Your task to perform on an android device: uninstall "Microsoft Outlook" Image 0: 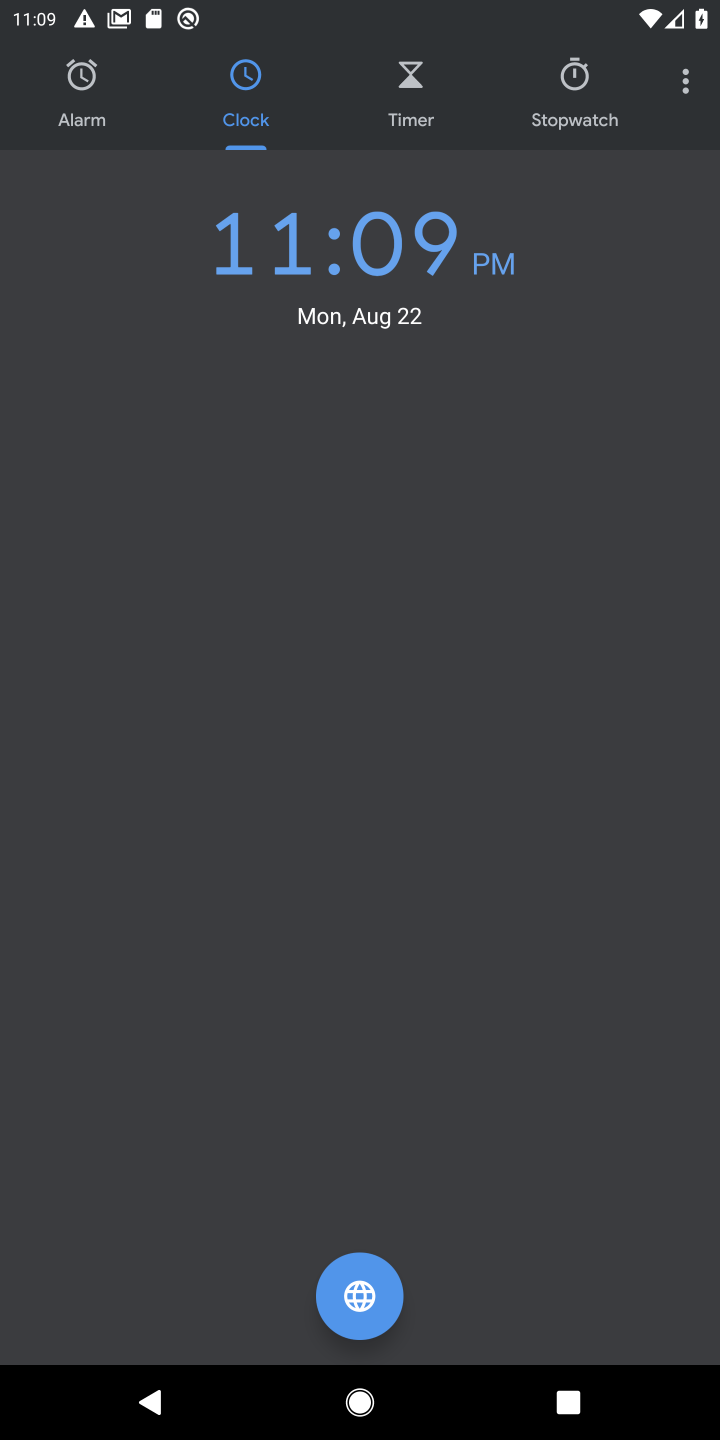
Step 0: press back button
Your task to perform on an android device: uninstall "Microsoft Outlook" Image 1: 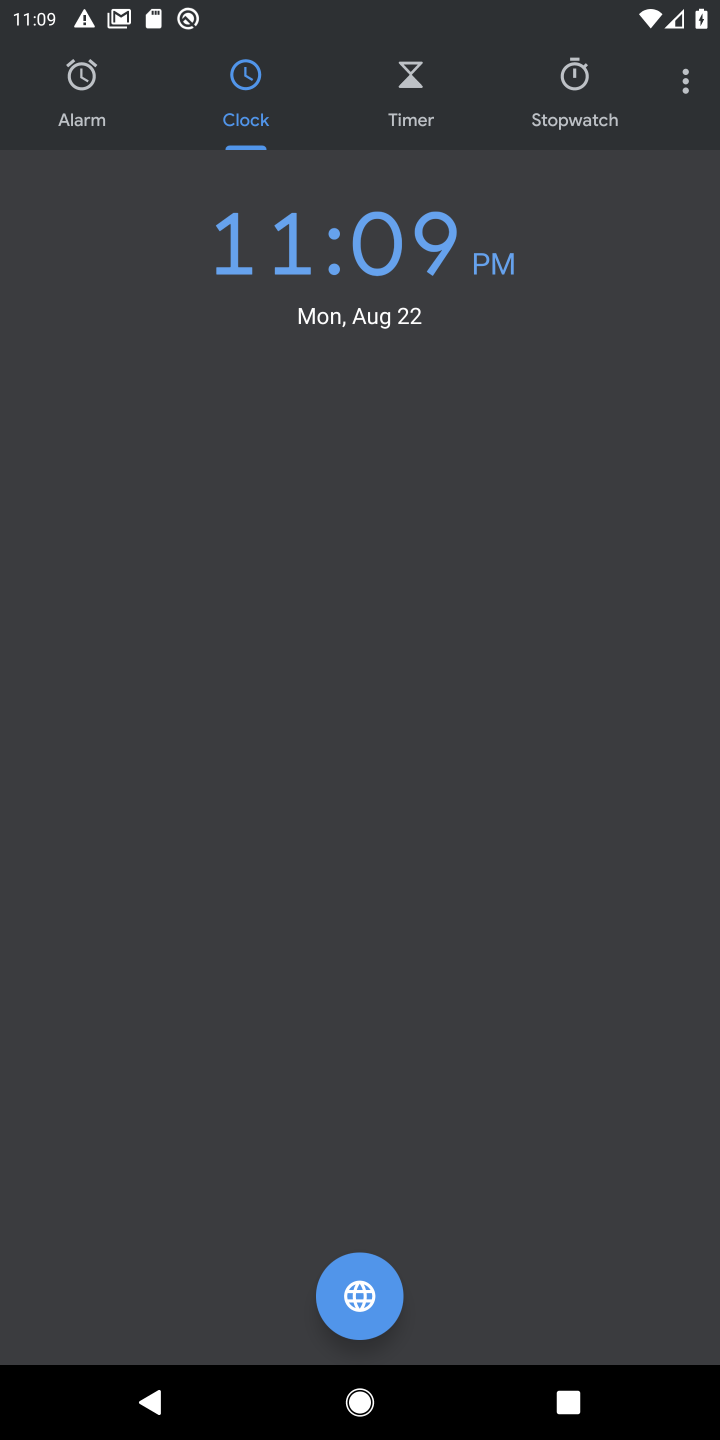
Step 1: press back button
Your task to perform on an android device: uninstall "Microsoft Outlook" Image 2: 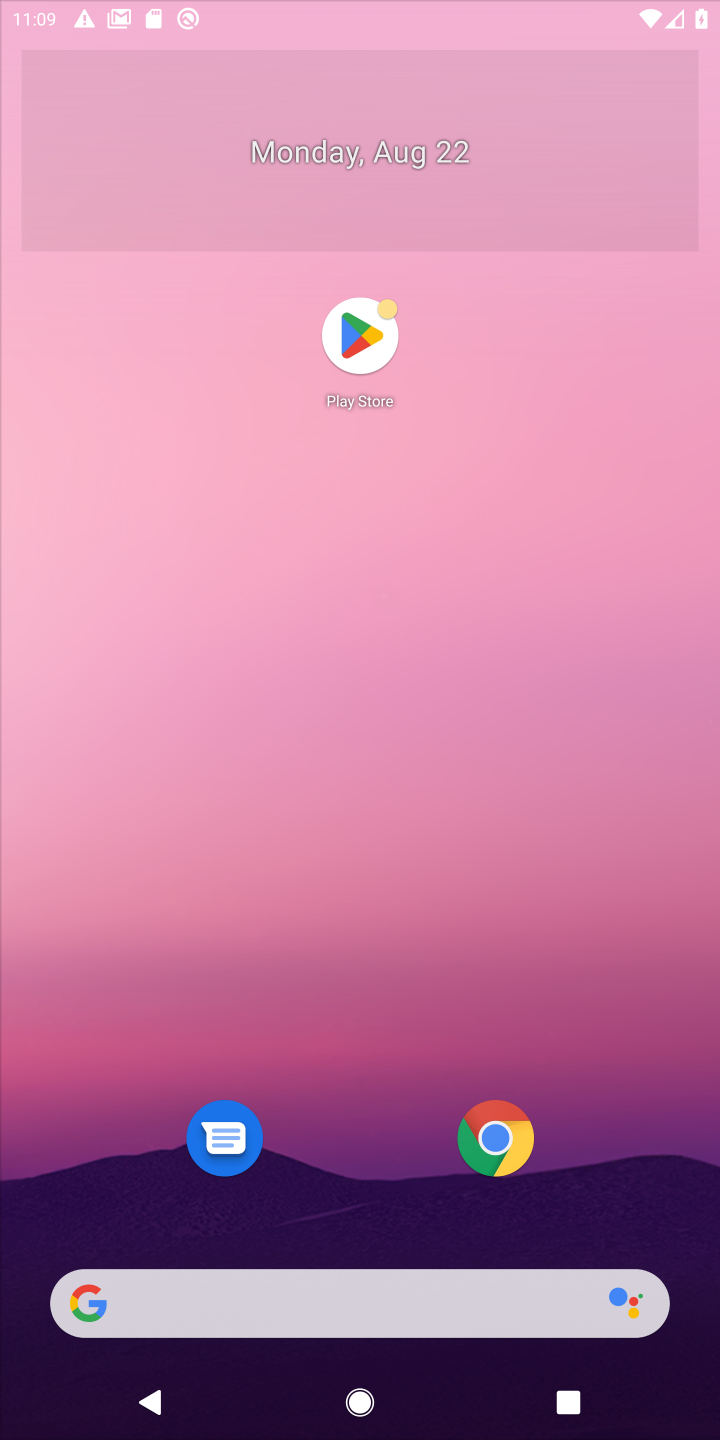
Step 2: press home button
Your task to perform on an android device: uninstall "Microsoft Outlook" Image 3: 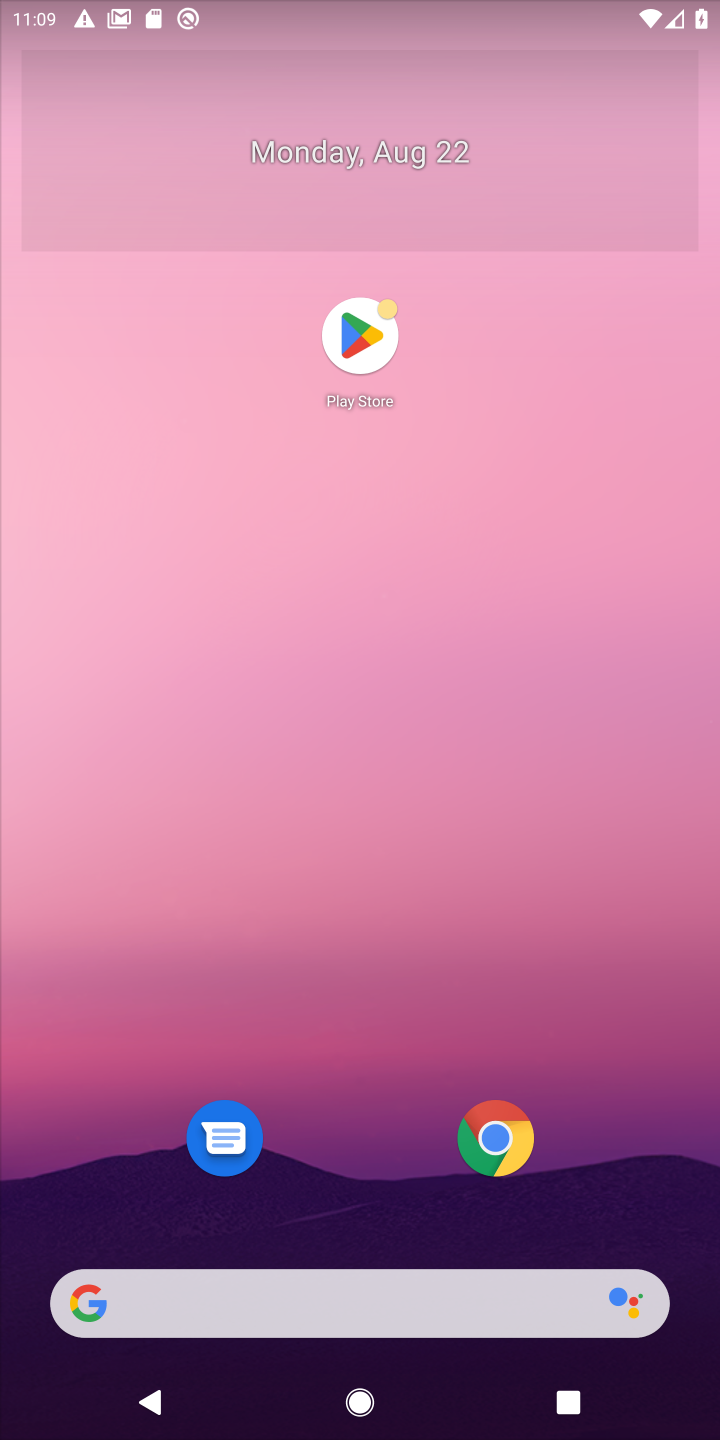
Step 3: click (361, 341)
Your task to perform on an android device: uninstall "Microsoft Outlook" Image 4: 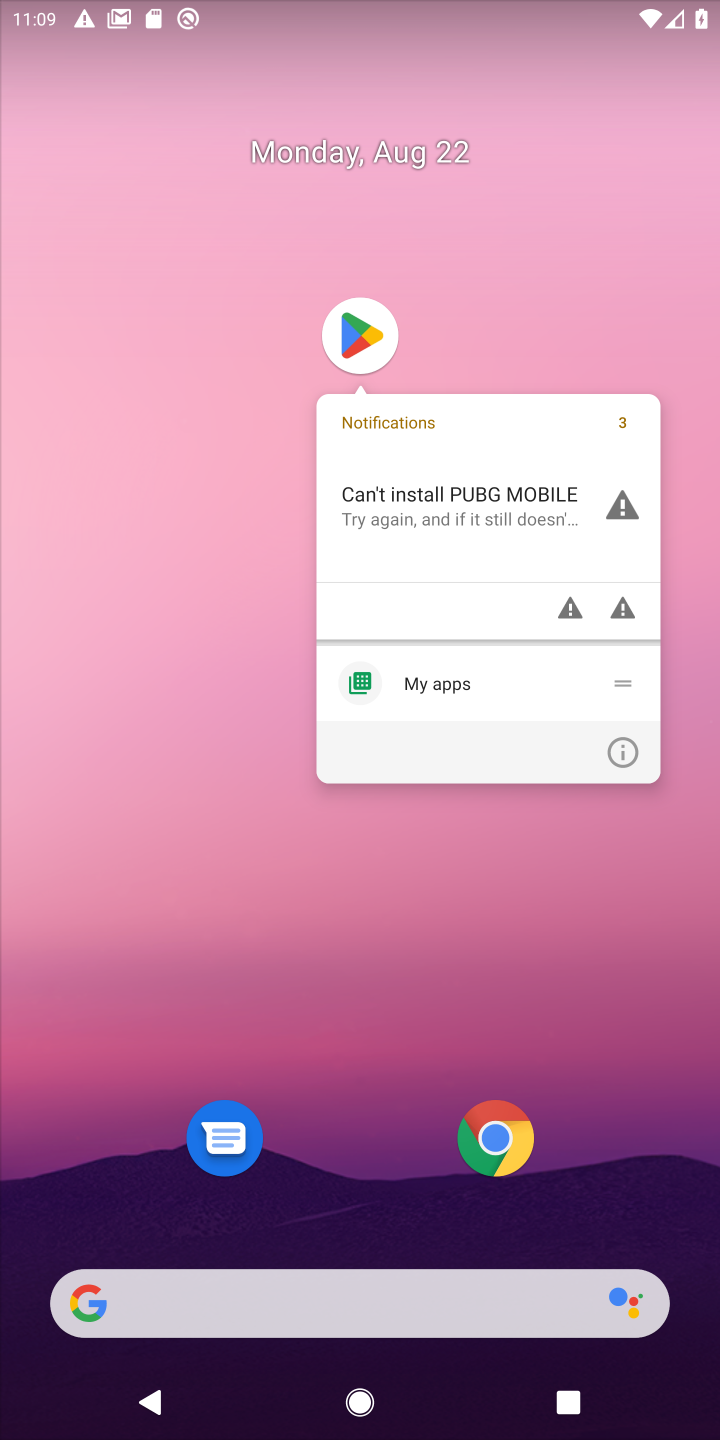
Step 4: click (345, 338)
Your task to perform on an android device: uninstall "Microsoft Outlook" Image 5: 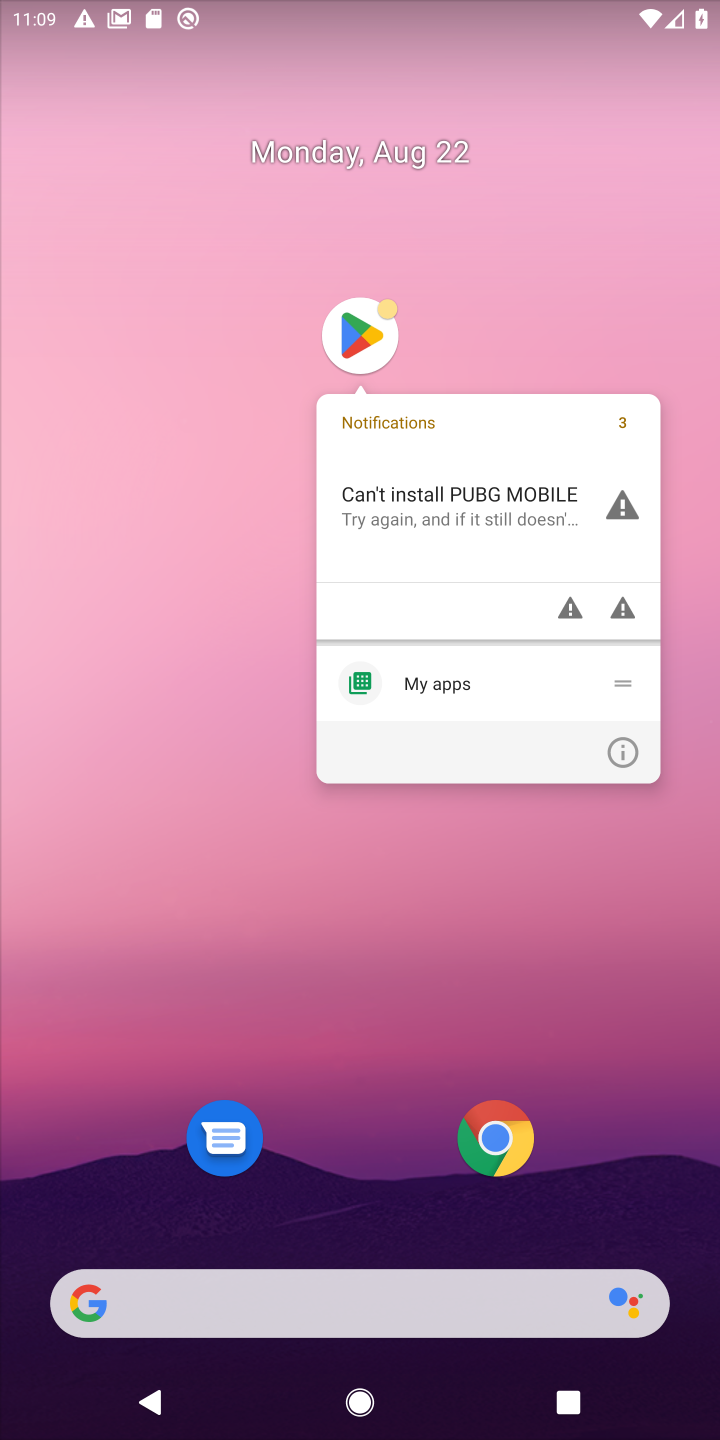
Step 5: click (351, 332)
Your task to perform on an android device: uninstall "Microsoft Outlook" Image 6: 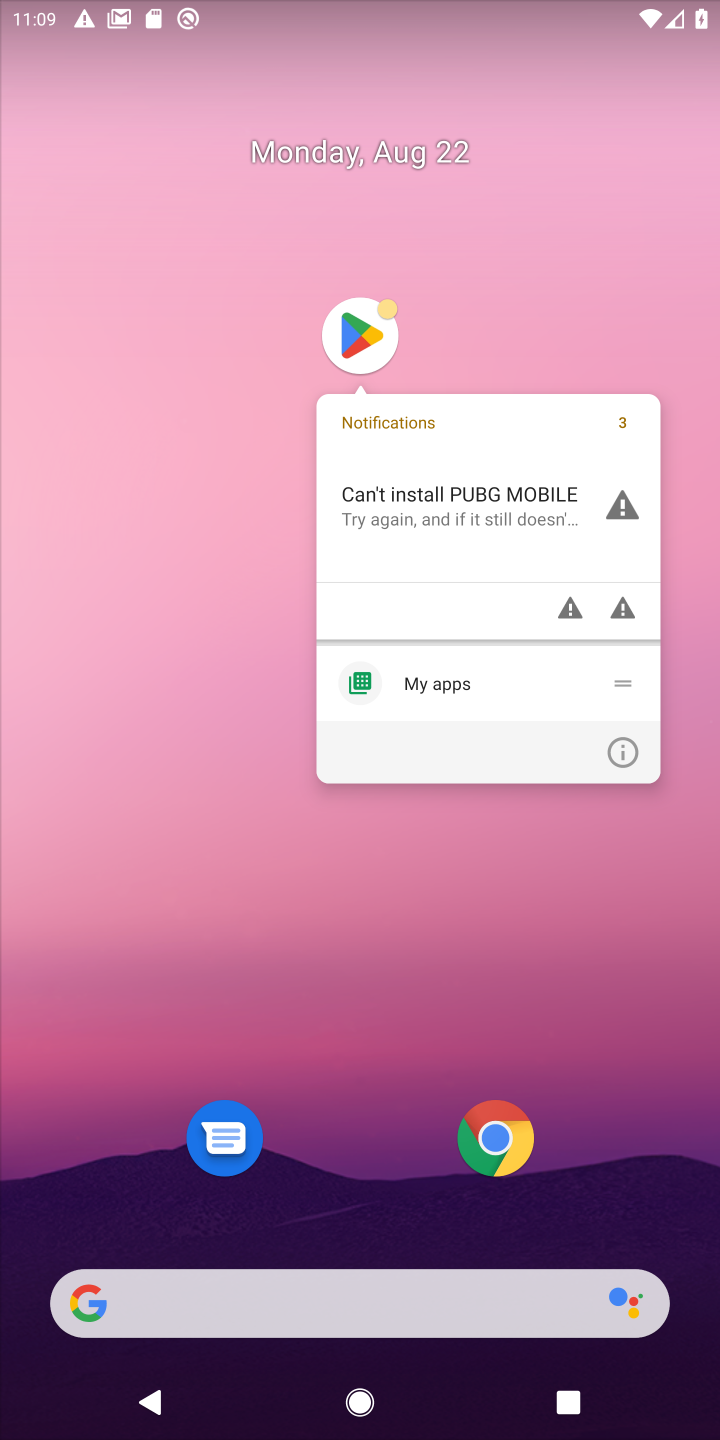
Step 6: click (351, 332)
Your task to perform on an android device: uninstall "Microsoft Outlook" Image 7: 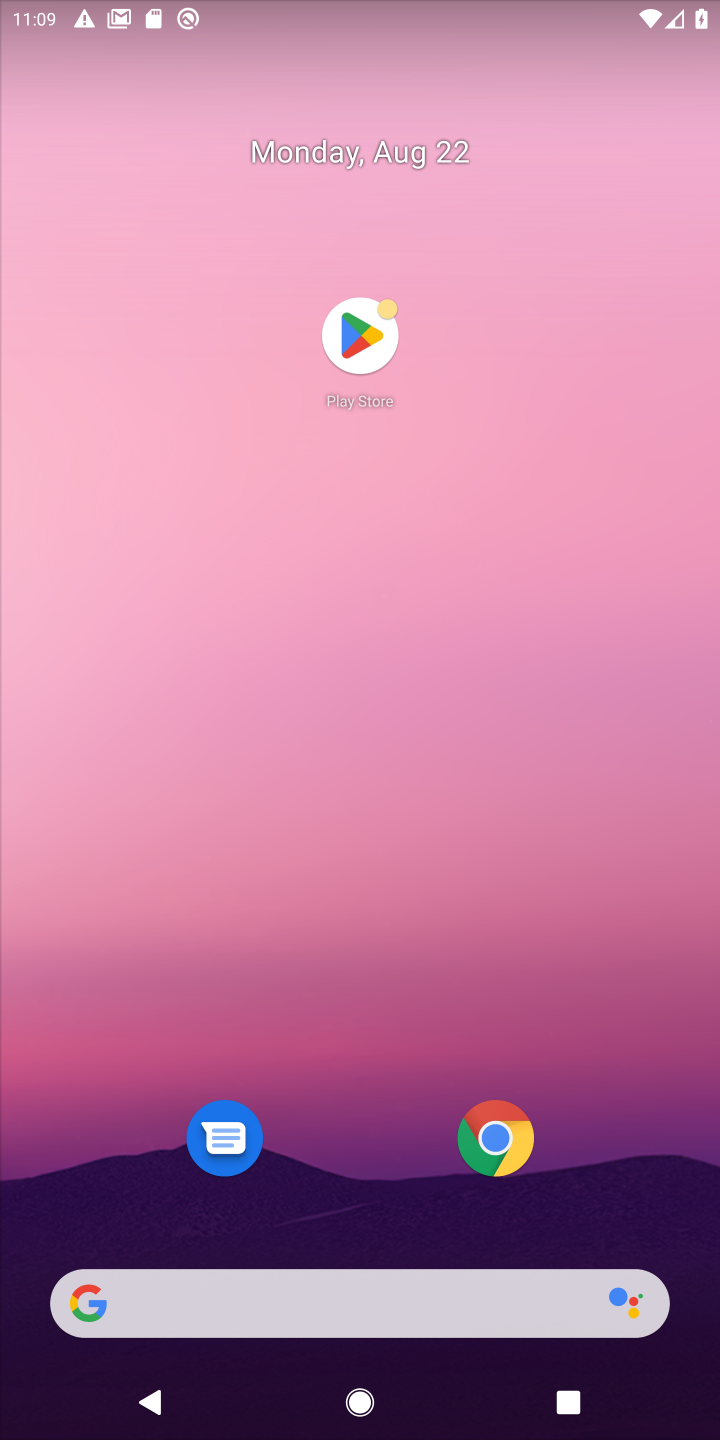
Step 7: click (364, 338)
Your task to perform on an android device: uninstall "Microsoft Outlook" Image 8: 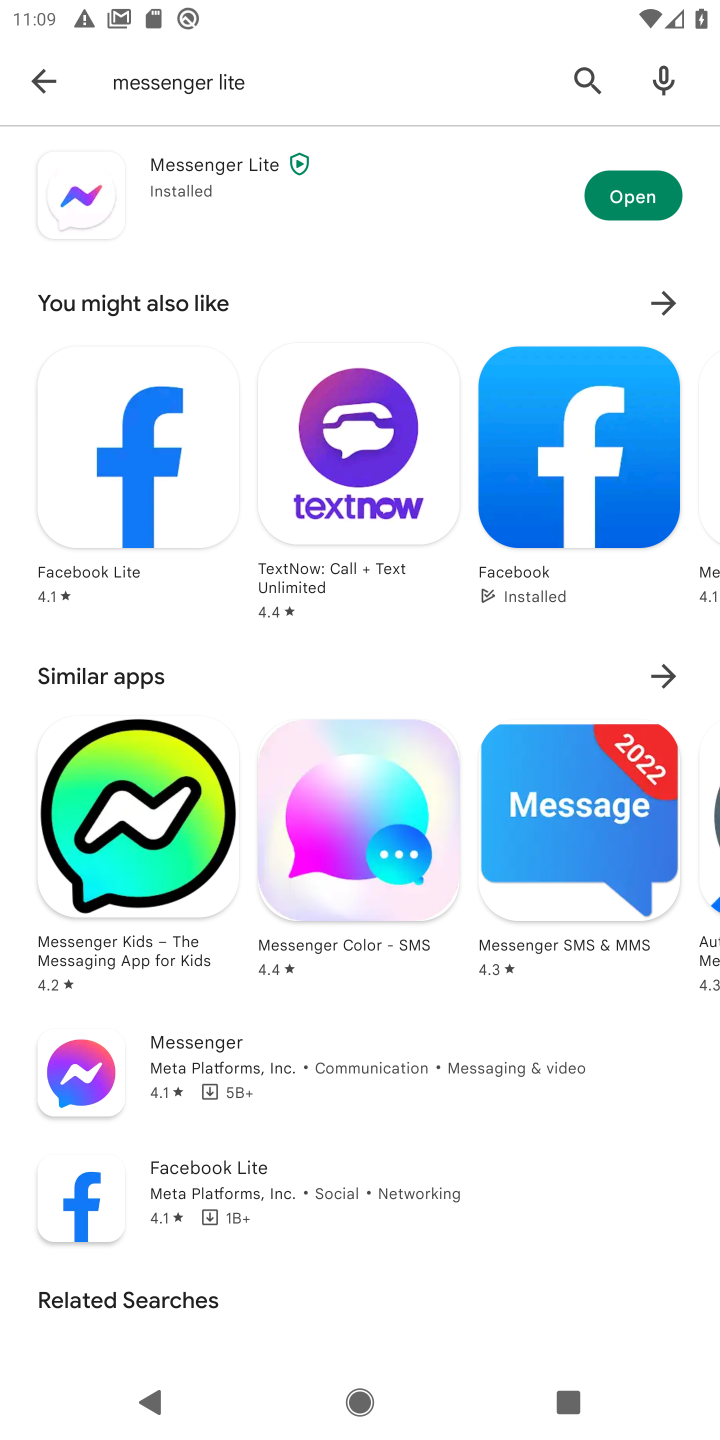
Step 8: click (583, 85)
Your task to perform on an android device: uninstall "Microsoft Outlook" Image 9: 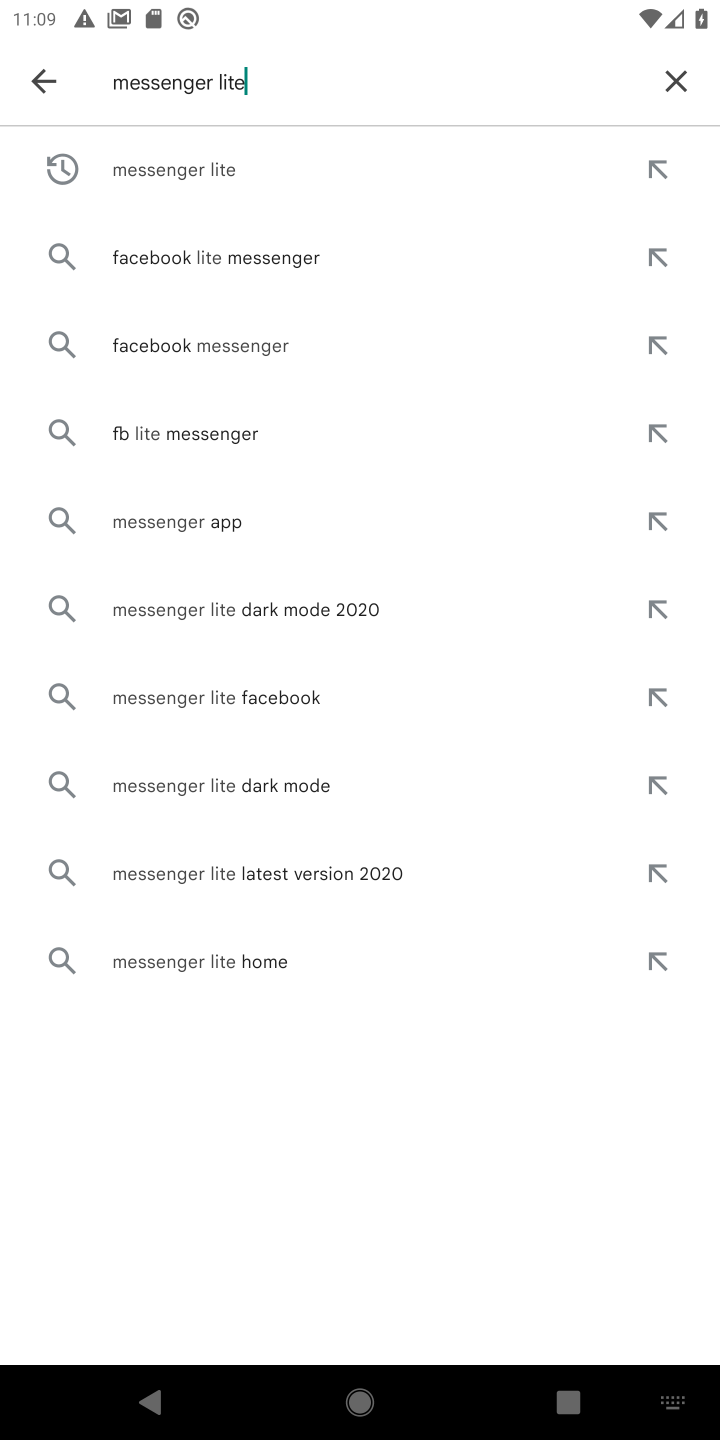
Step 9: click (680, 74)
Your task to perform on an android device: uninstall "Microsoft Outlook" Image 10: 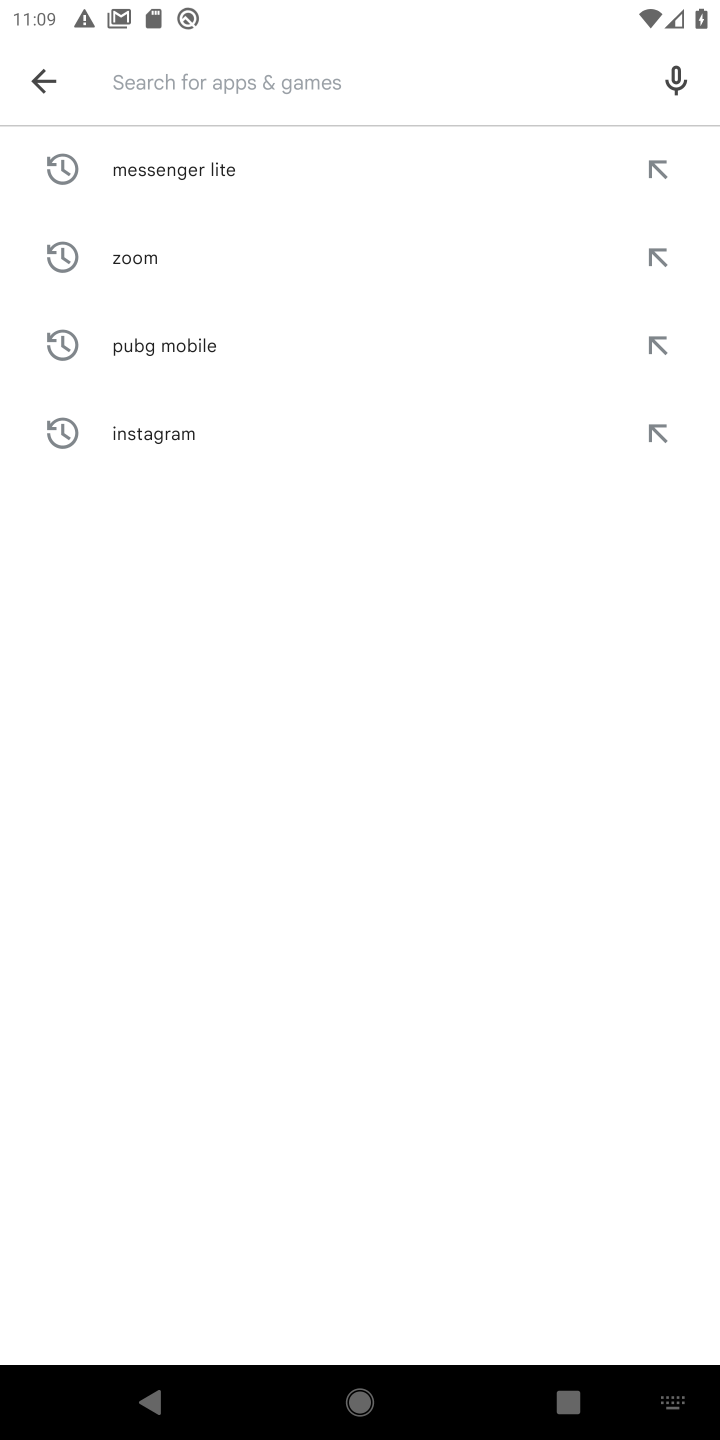
Step 10: click (496, 93)
Your task to perform on an android device: uninstall "Microsoft Outlook" Image 11: 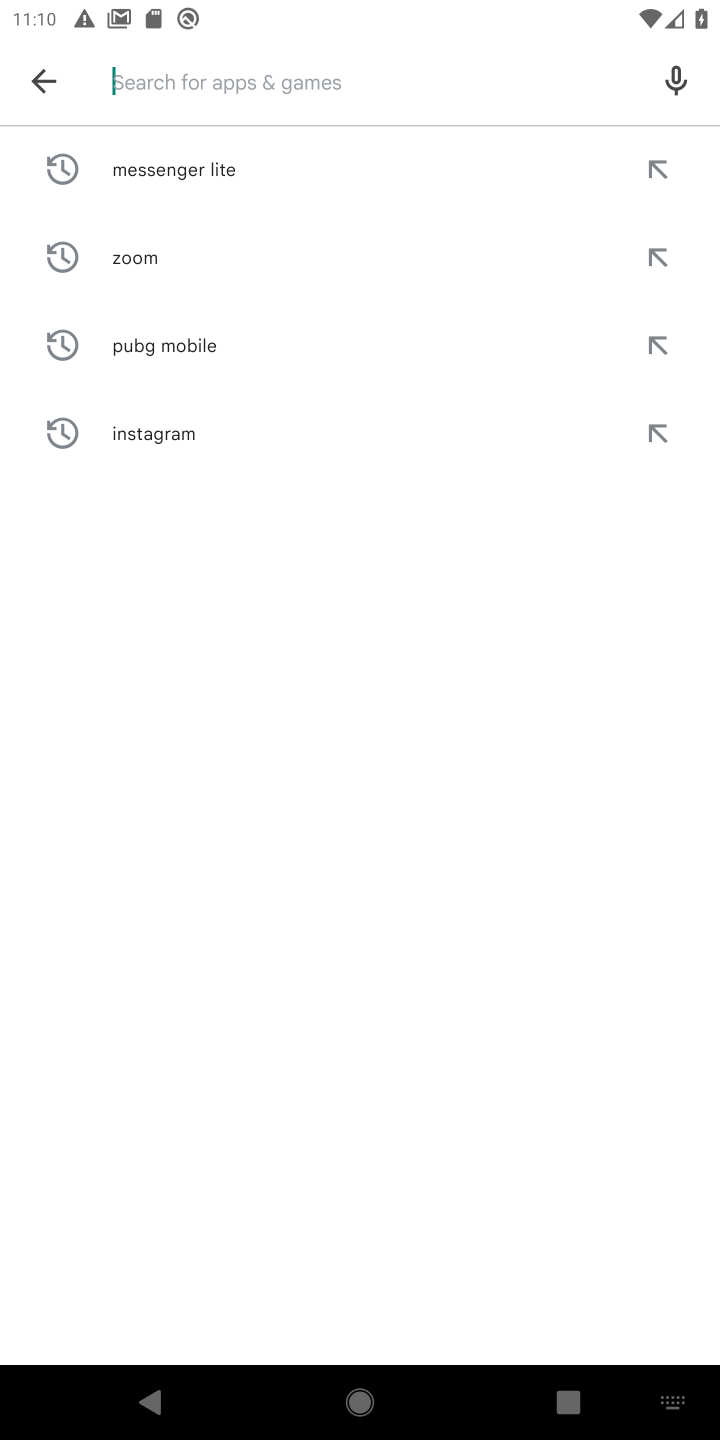
Step 11: type "microsoft outlock"
Your task to perform on an android device: uninstall "Microsoft Outlook" Image 12: 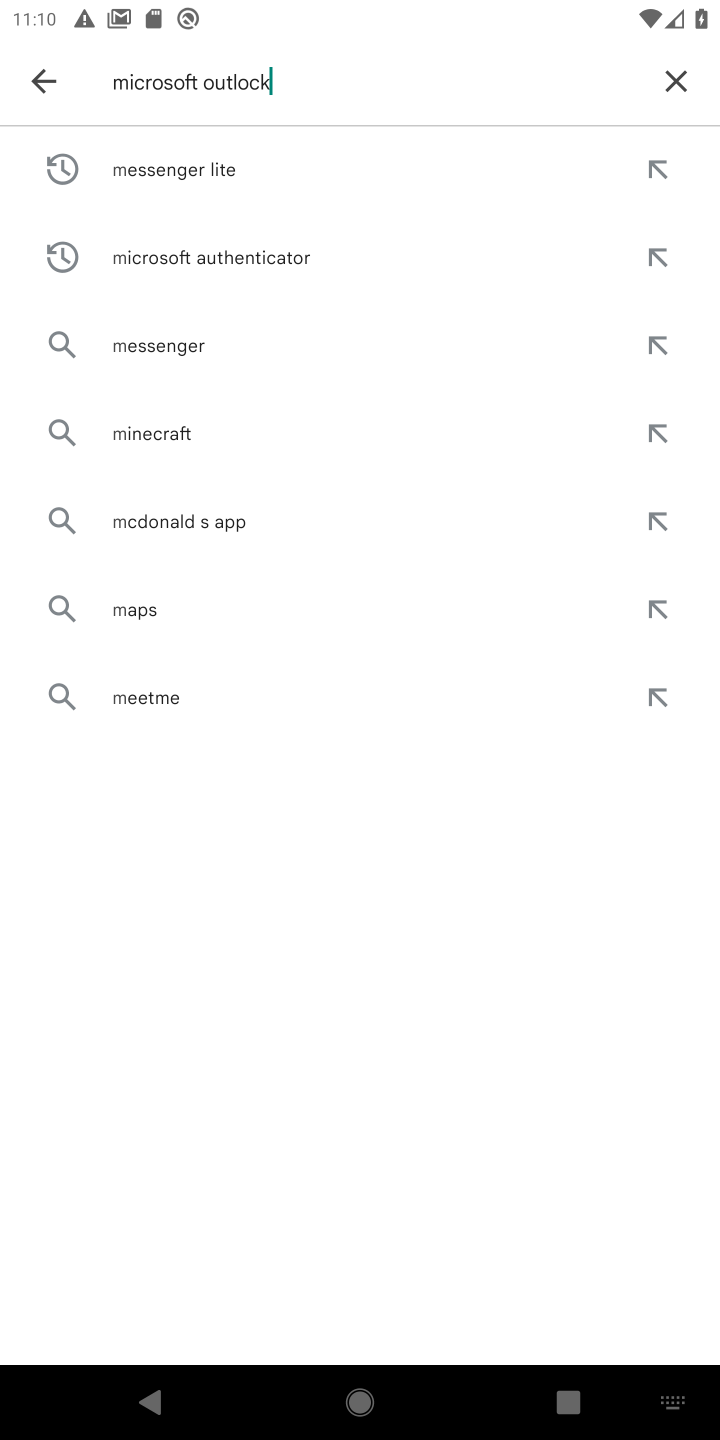
Step 12: type ""
Your task to perform on an android device: uninstall "Microsoft Outlook" Image 13: 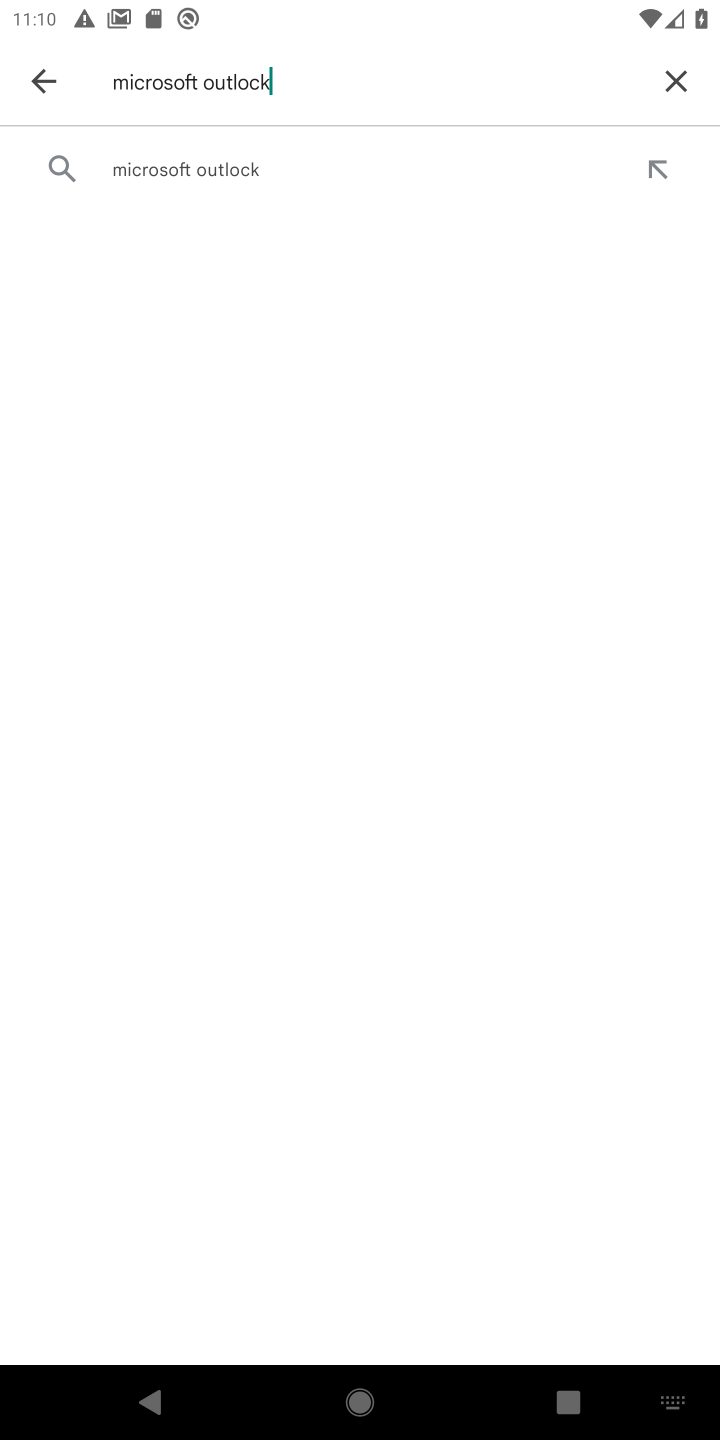
Step 13: click (190, 166)
Your task to perform on an android device: uninstall "Microsoft Outlook" Image 14: 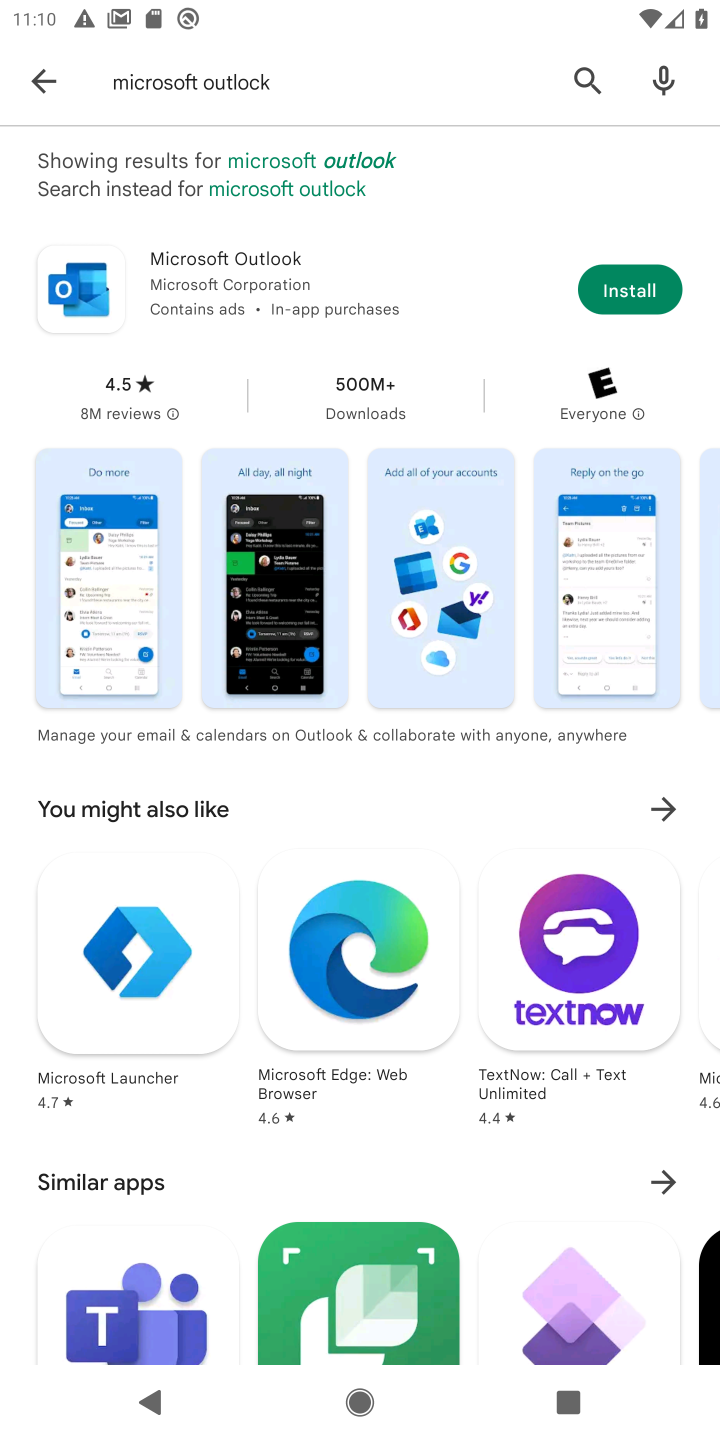
Step 14: task complete